Your task to perform on an android device: toggle notification dots Image 0: 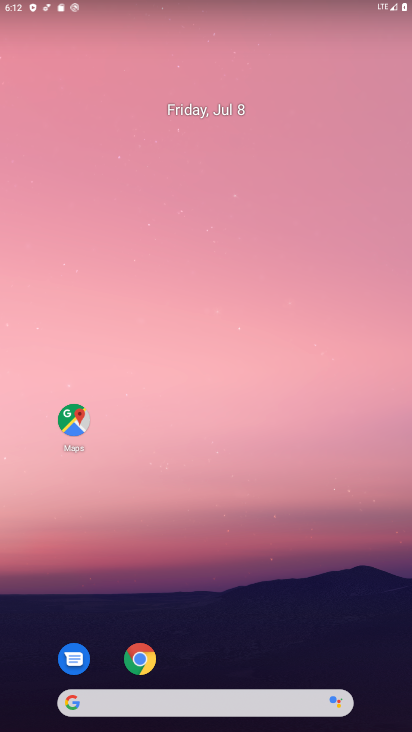
Step 0: drag from (285, 704) to (318, 45)
Your task to perform on an android device: toggle notification dots Image 1: 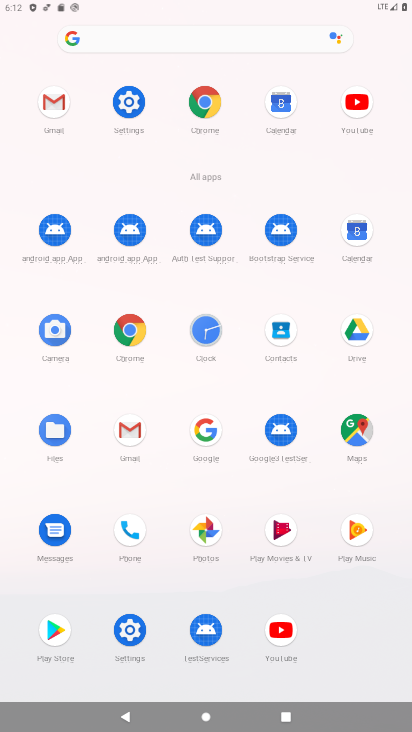
Step 1: click (123, 106)
Your task to perform on an android device: toggle notification dots Image 2: 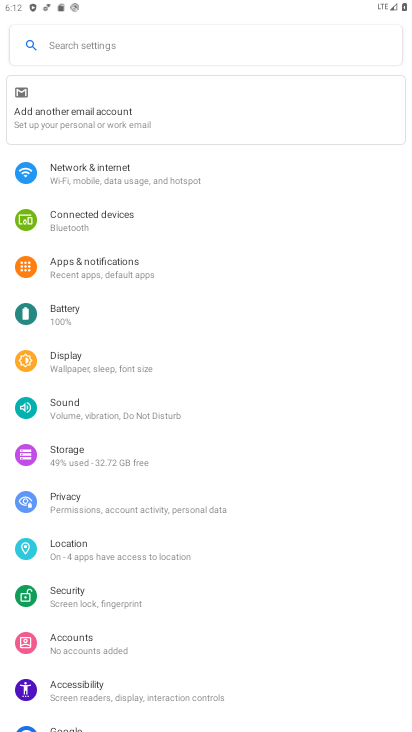
Step 2: click (89, 271)
Your task to perform on an android device: toggle notification dots Image 3: 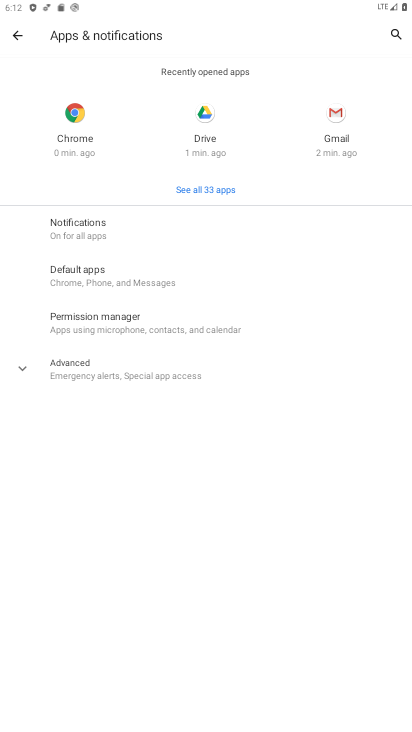
Step 3: click (104, 230)
Your task to perform on an android device: toggle notification dots Image 4: 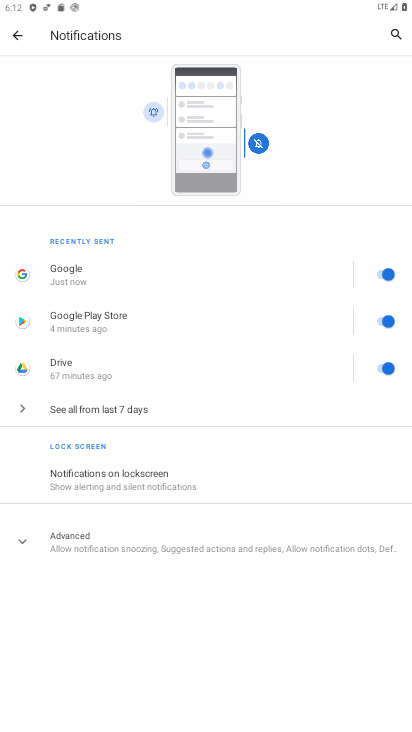
Step 4: click (92, 534)
Your task to perform on an android device: toggle notification dots Image 5: 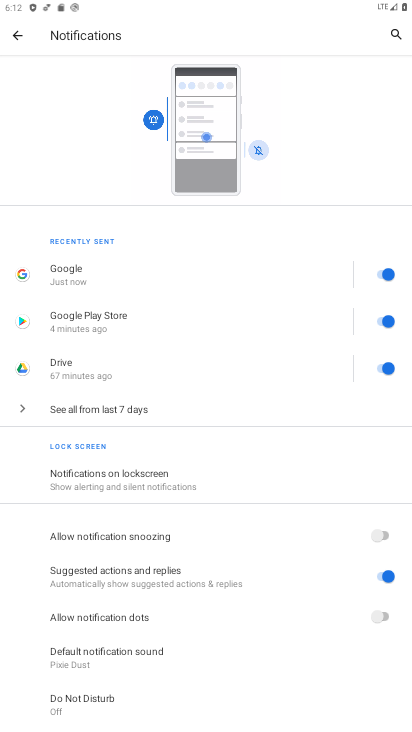
Step 5: click (385, 617)
Your task to perform on an android device: toggle notification dots Image 6: 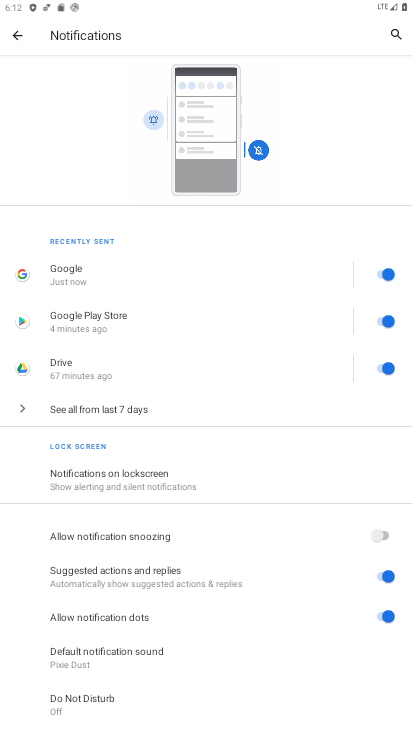
Step 6: task complete